Your task to perform on an android device: all mails in gmail Image 0: 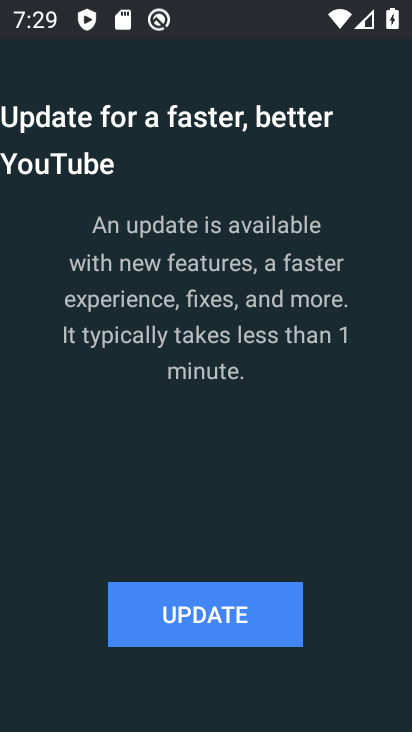
Step 0: press home button
Your task to perform on an android device: all mails in gmail Image 1: 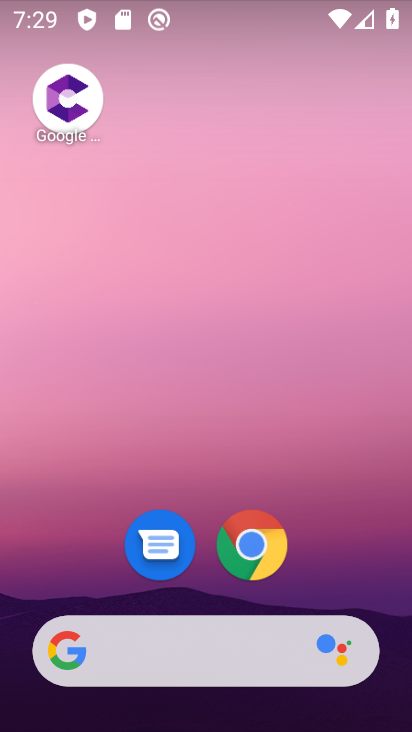
Step 1: drag from (212, 485) to (157, 83)
Your task to perform on an android device: all mails in gmail Image 2: 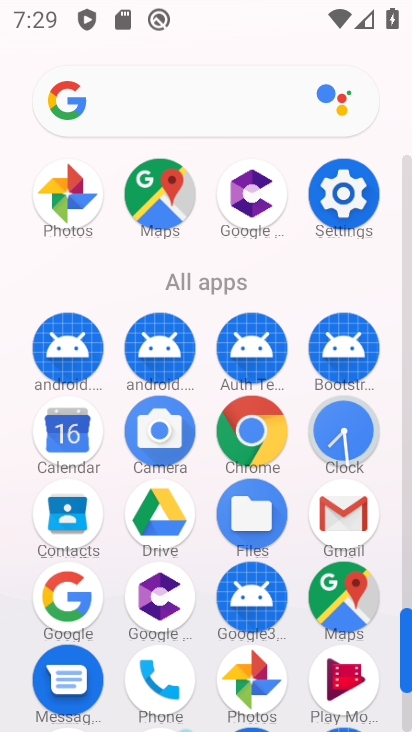
Step 2: click (346, 512)
Your task to perform on an android device: all mails in gmail Image 3: 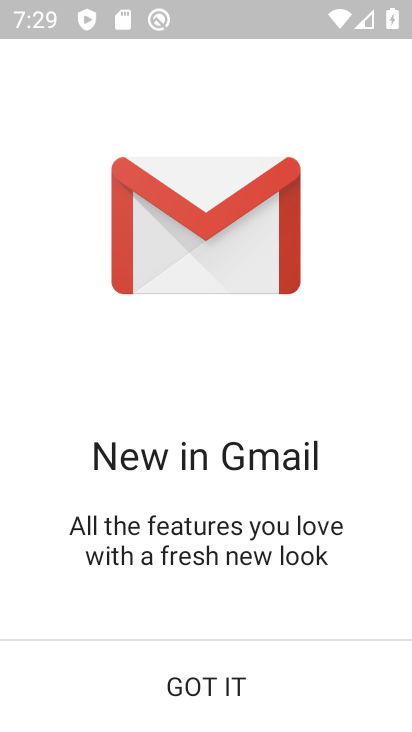
Step 3: click (277, 702)
Your task to perform on an android device: all mails in gmail Image 4: 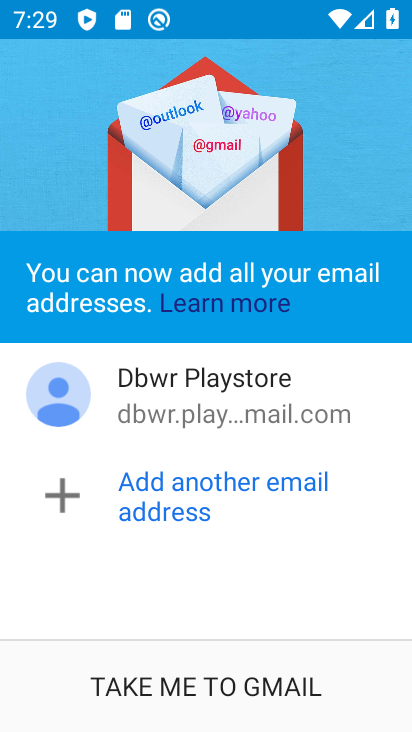
Step 4: click (225, 692)
Your task to perform on an android device: all mails in gmail Image 5: 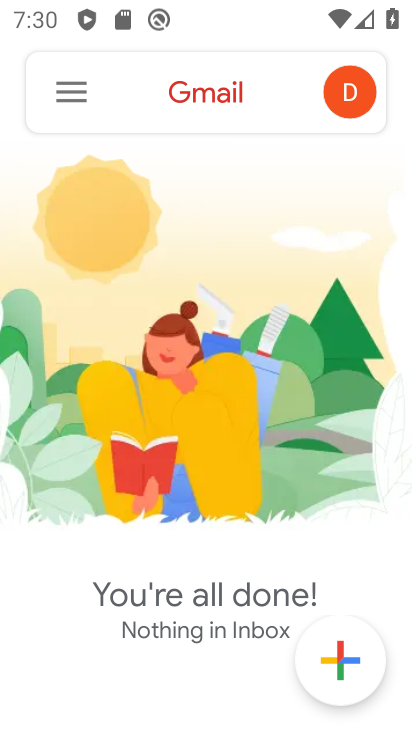
Step 5: click (44, 73)
Your task to perform on an android device: all mails in gmail Image 6: 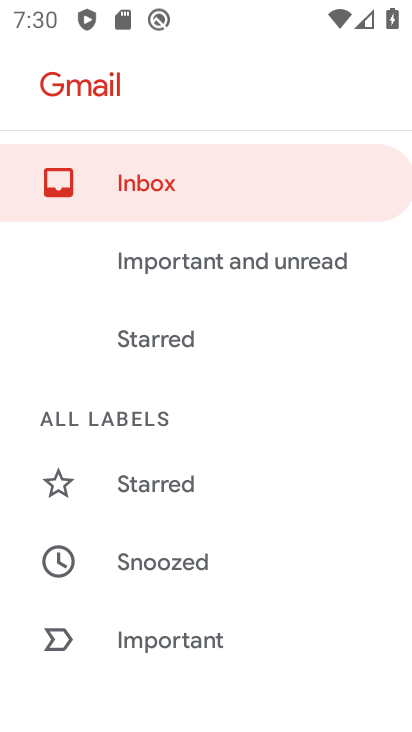
Step 6: drag from (249, 540) to (218, 292)
Your task to perform on an android device: all mails in gmail Image 7: 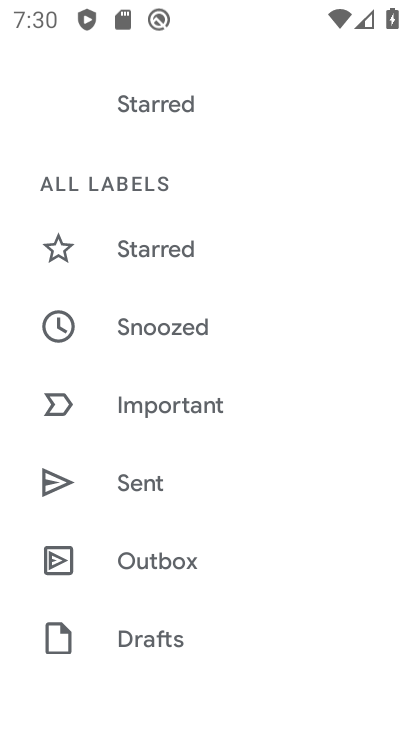
Step 7: drag from (240, 581) to (198, 328)
Your task to perform on an android device: all mails in gmail Image 8: 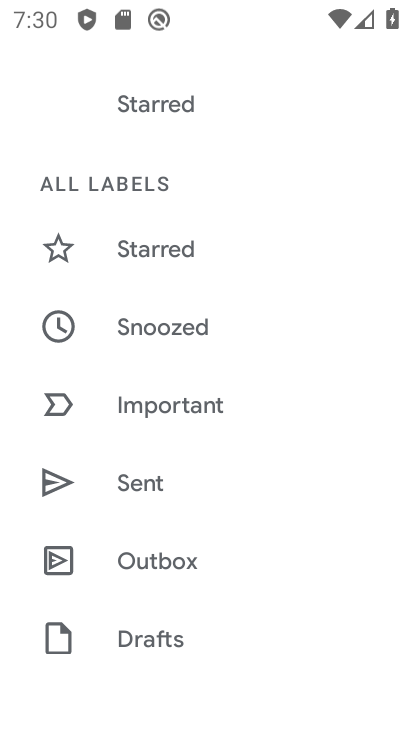
Step 8: drag from (227, 554) to (217, 239)
Your task to perform on an android device: all mails in gmail Image 9: 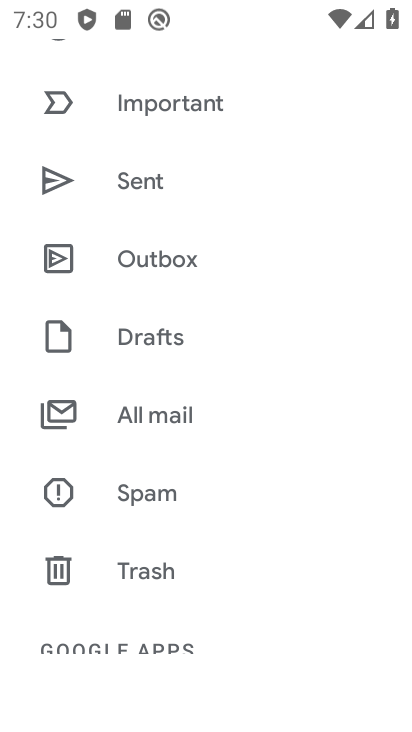
Step 9: click (218, 417)
Your task to perform on an android device: all mails in gmail Image 10: 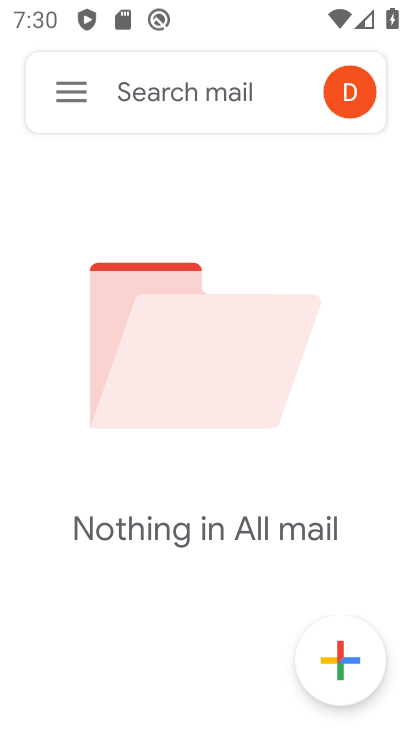
Step 10: task complete